Your task to perform on an android device: clear history in the chrome app Image 0: 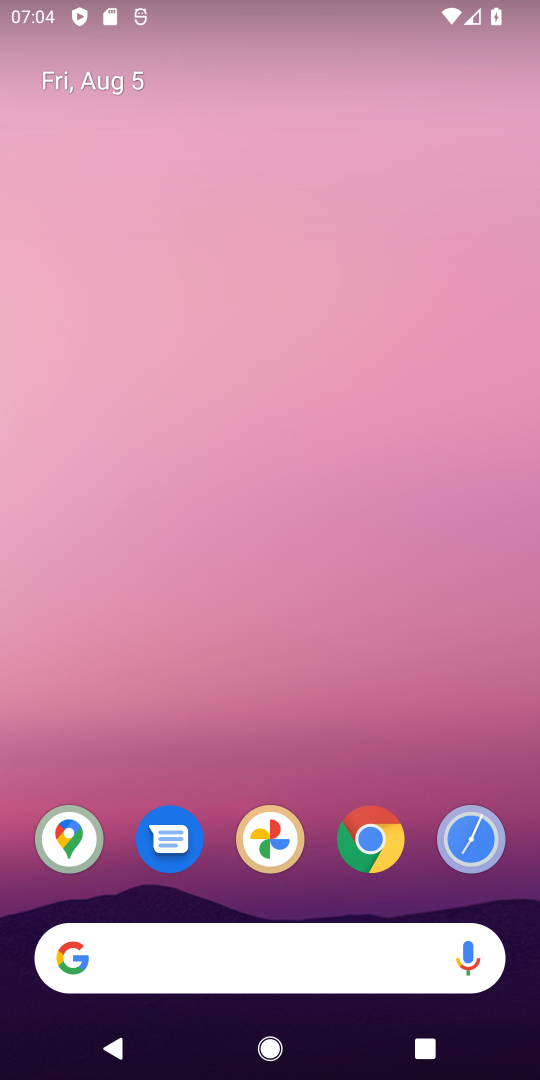
Step 0: click (380, 839)
Your task to perform on an android device: clear history in the chrome app Image 1: 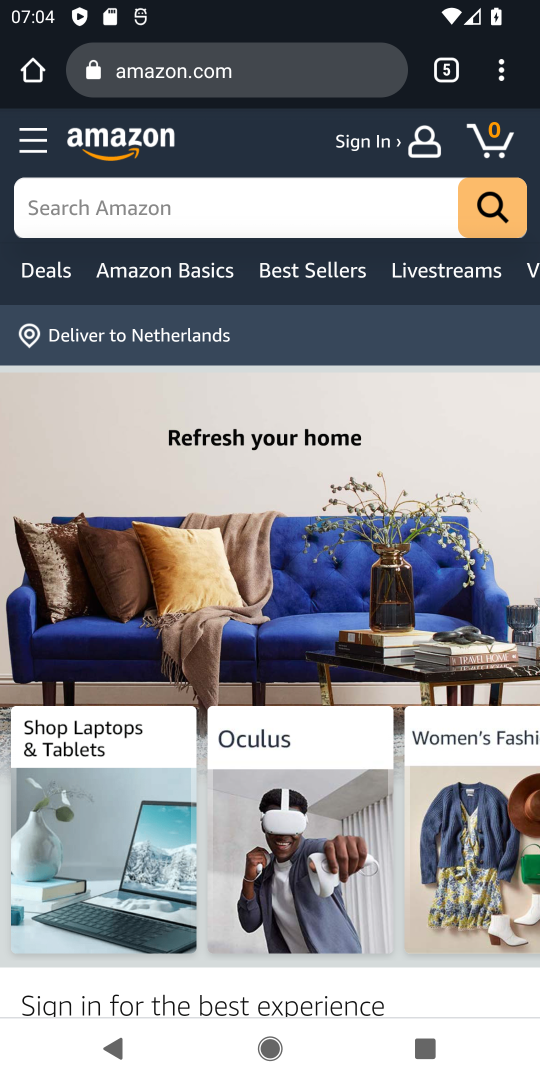
Step 1: click (501, 85)
Your task to perform on an android device: clear history in the chrome app Image 2: 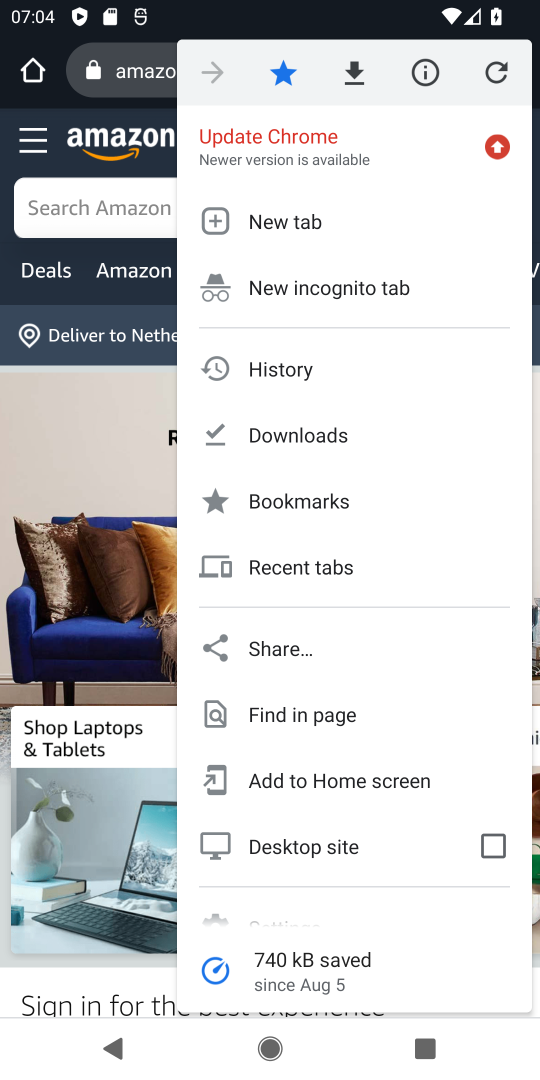
Step 2: click (289, 372)
Your task to perform on an android device: clear history in the chrome app Image 3: 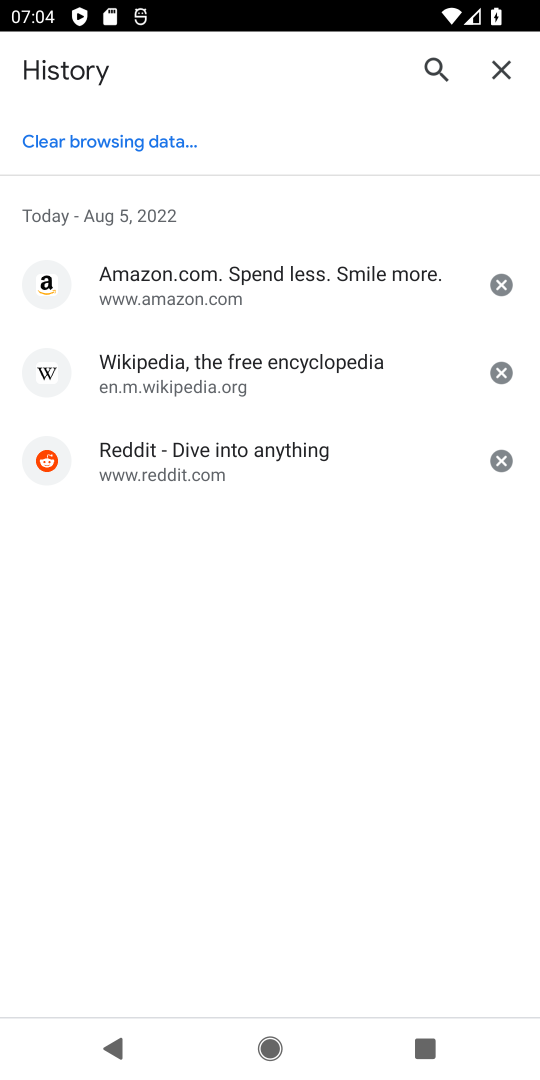
Step 3: click (113, 146)
Your task to perform on an android device: clear history in the chrome app Image 4: 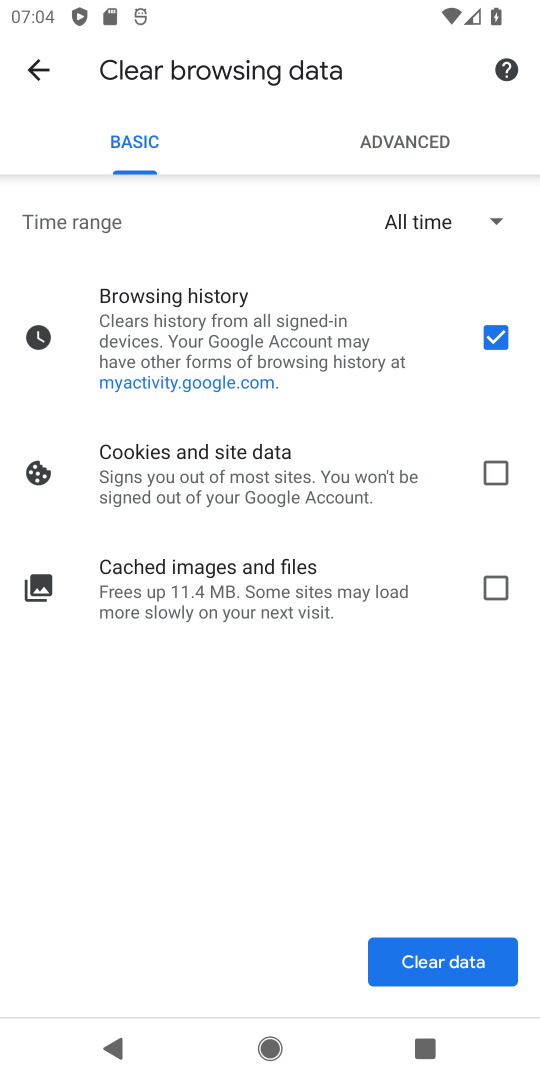
Step 4: click (452, 964)
Your task to perform on an android device: clear history in the chrome app Image 5: 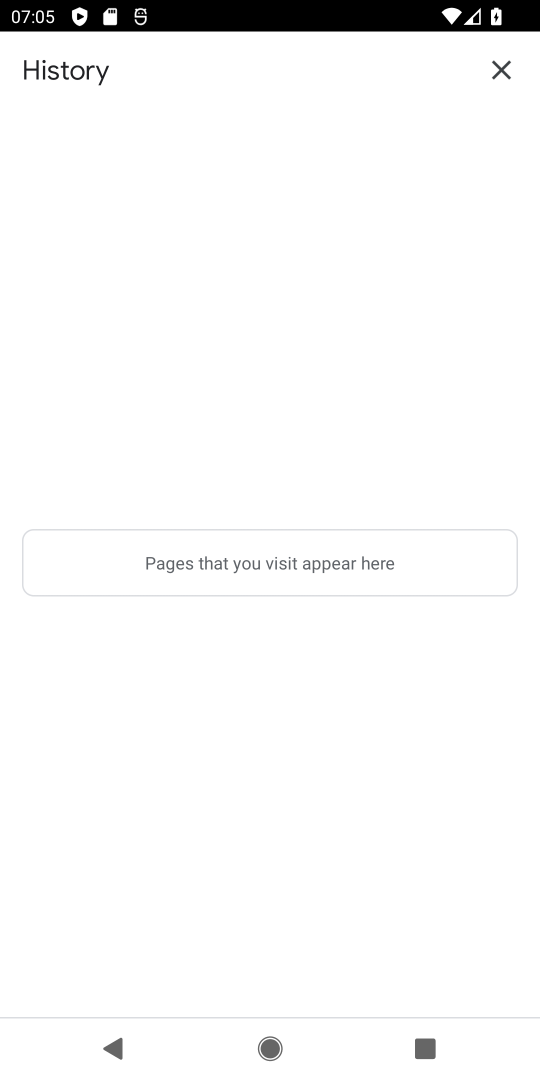
Step 5: task complete